Your task to perform on an android device: Open the camera Image 0: 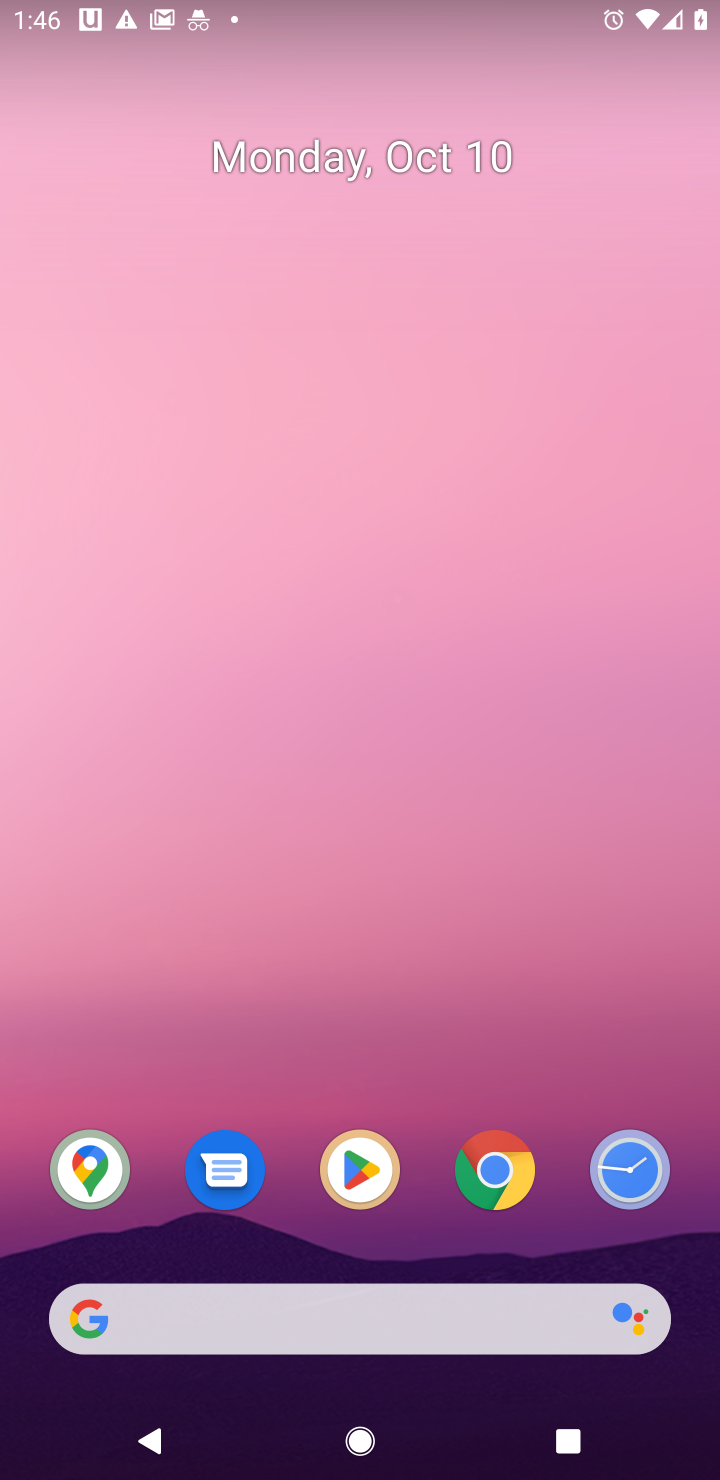
Step 0: drag from (395, 928) to (292, 77)
Your task to perform on an android device: Open the camera Image 1: 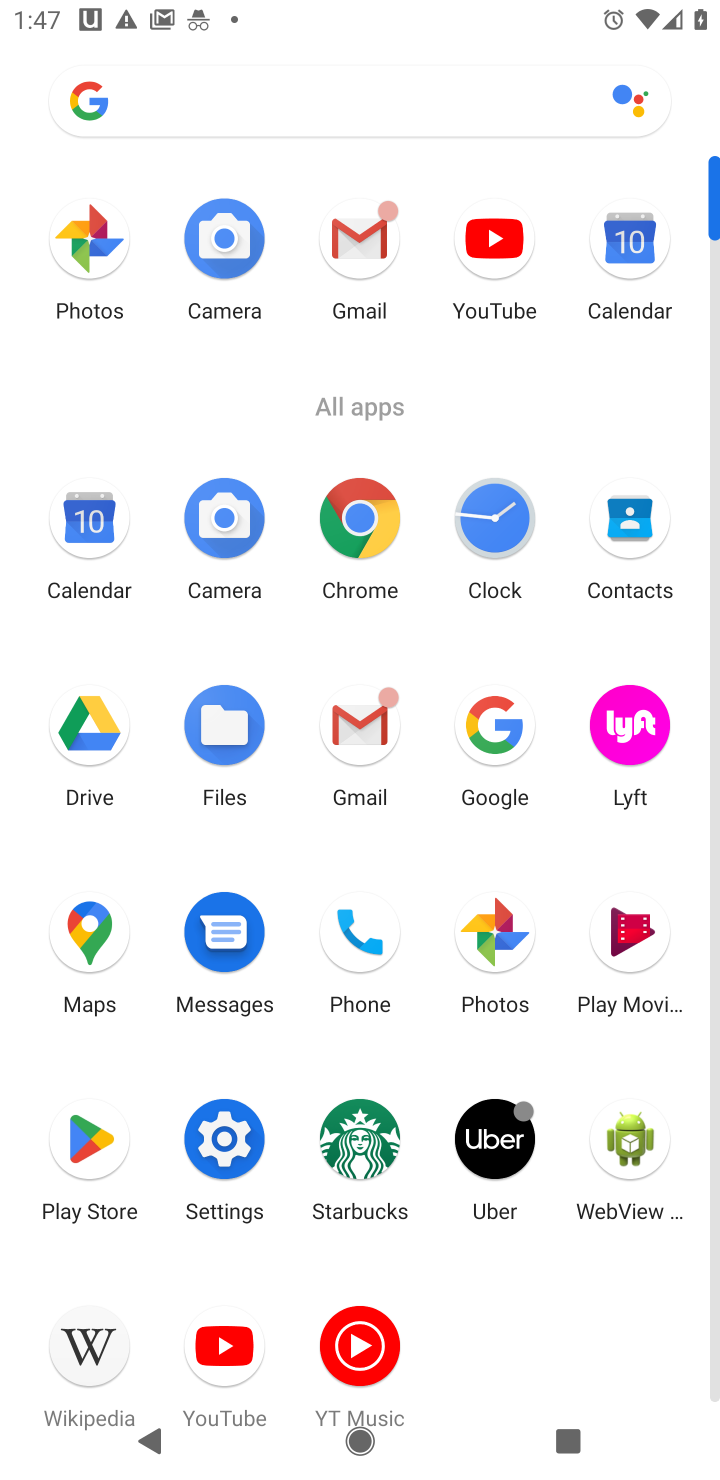
Step 1: click (224, 221)
Your task to perform on an android device: Open the camera Image 2: 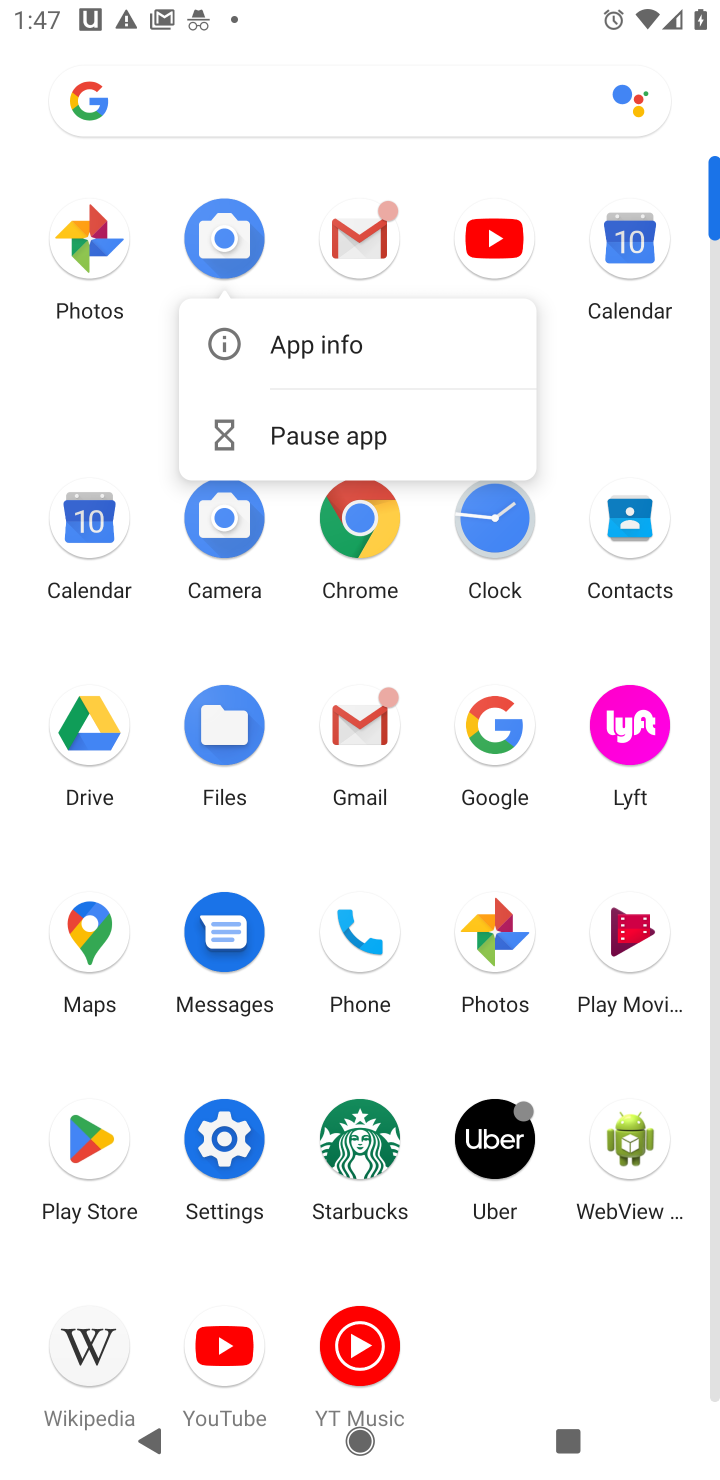
Step 2: click (215, 221)
Your task to perform on an android device: Open the camera Image 3: 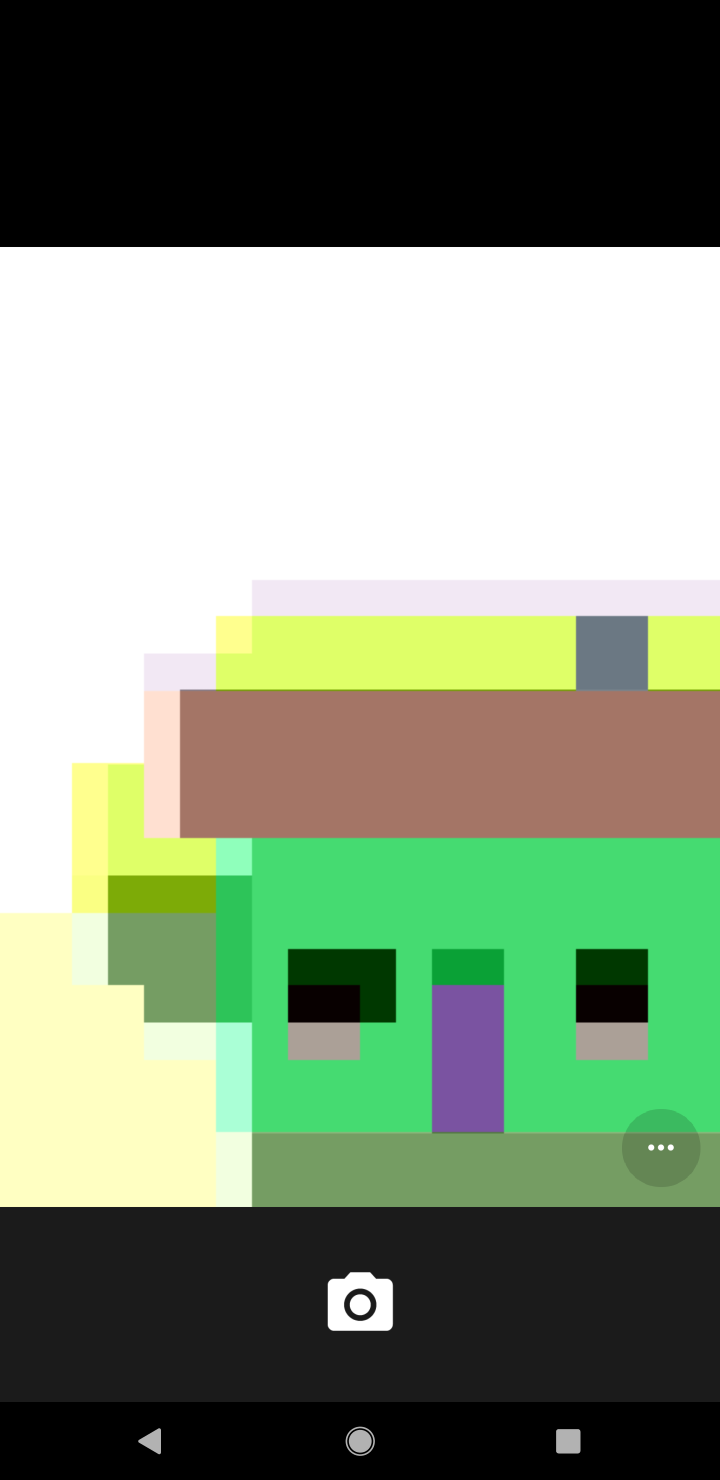
Step 3: task complete